Your task to perform on an android device: set default search engine in the chrome app Image 0: 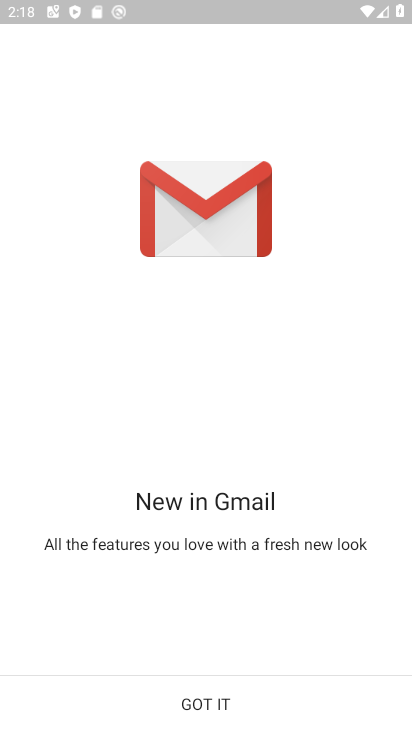
Step 0: press home button
Your task to perform on an android device: set default search engine in the chrome app Image 1: 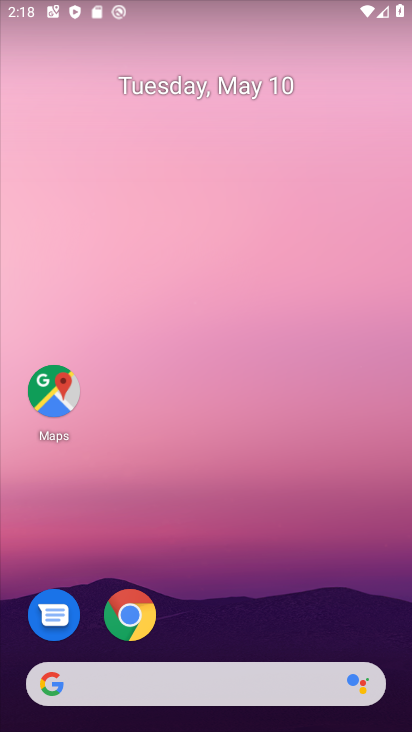
Step 1: click (121, 613)
Your task to perform on an android device: set default search engine in the chrome app Image 2: 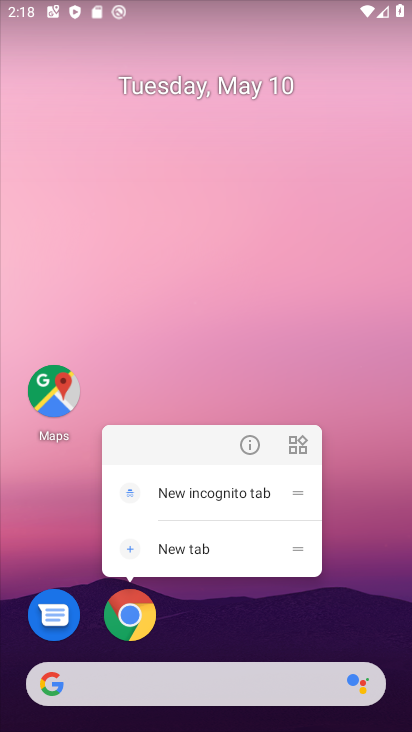
Step 2: click (125, 620)
Your task to perform on an android device: set default search engine in the chrome app Image 3: 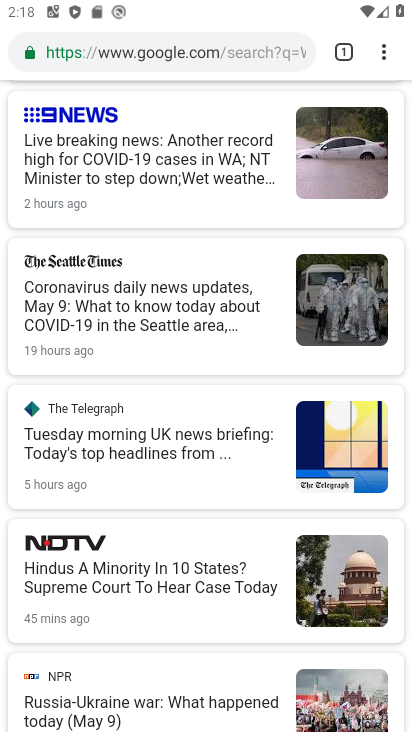
Step 3: drag from (381, 46) to (202, 573)
Your task to perform on an android device: set default search engine in the chrome app Image 4: 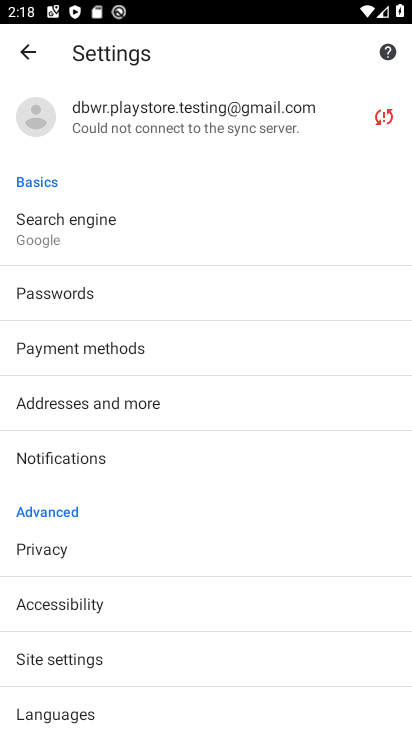
Step 4: click (55, 221)
Your task to perform on an android device: set default search engine in the chrome app Image 5: 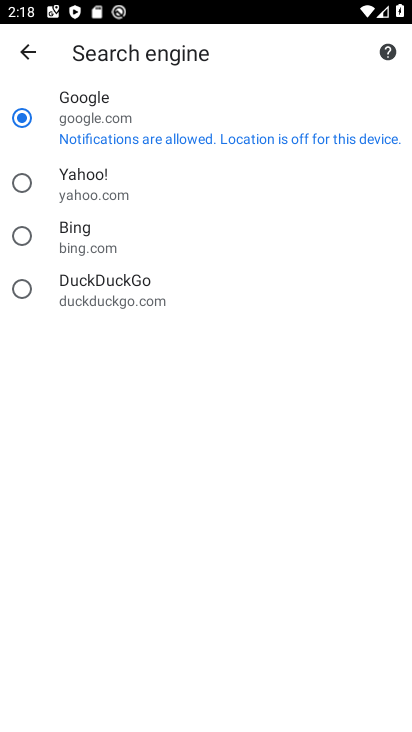
Step 5: task complete